Your task to perform on an android device: see sites visited before in the chrome app Image 0: 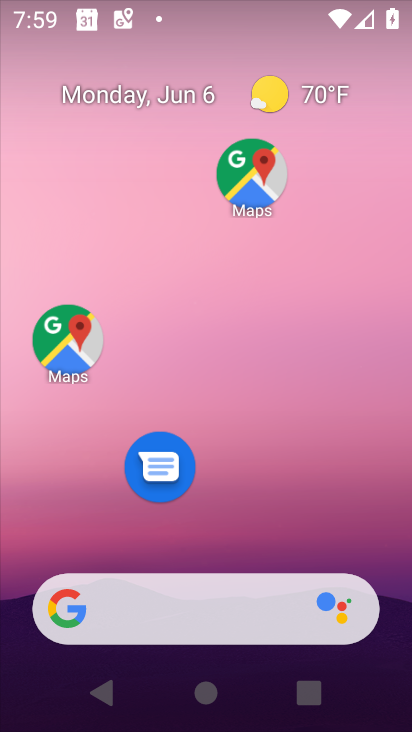
Step 0: drag from (235, 636) to (234, 345)
Your task to perform on an android device: see sites visited before in the chrome app Image 1: 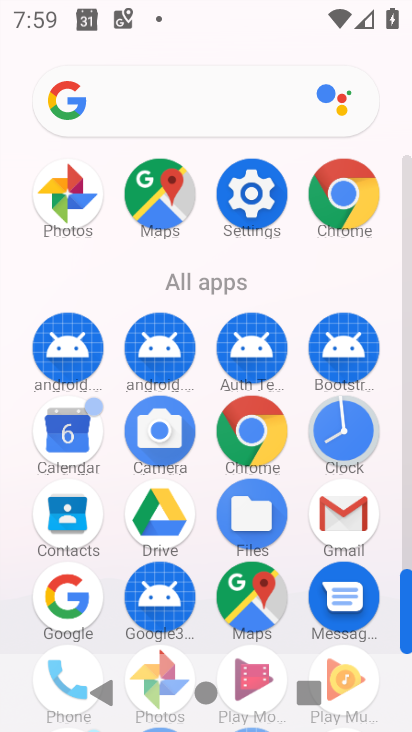
Step 1: click (243, 448)
Your task to perform on an android device: see sites visited before in the chrome app Image 2: 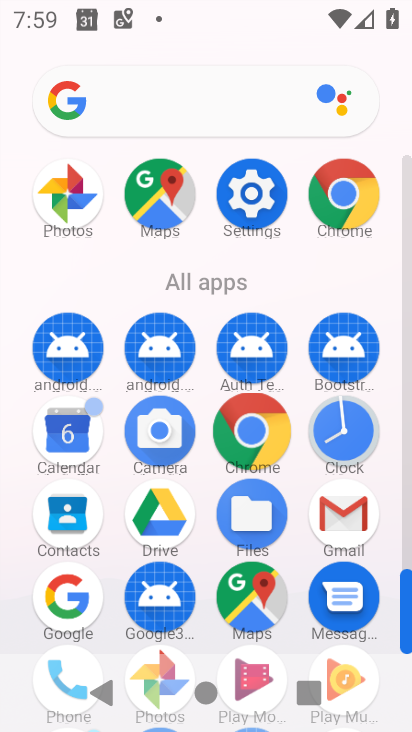
Step 2: click (243, 448)
Your task to perform on an android device: see sites visited before in the chrome app Image 3: 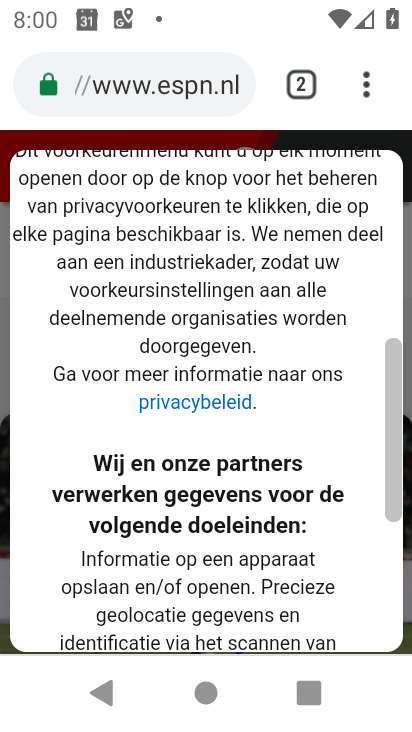
Step 3: click (361, 86)
Your task to perform on an android device: see sites visited before in the chrome app Image 4: 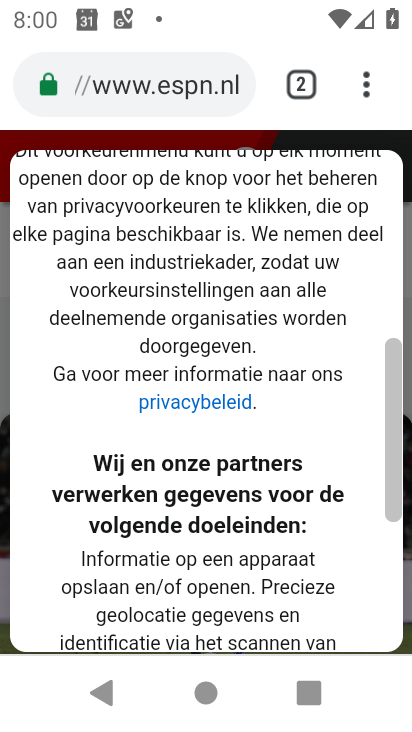
Step 4: click (365, 79)
Your task to perform on an android device: see sites visited before in the chrome app Image 5: 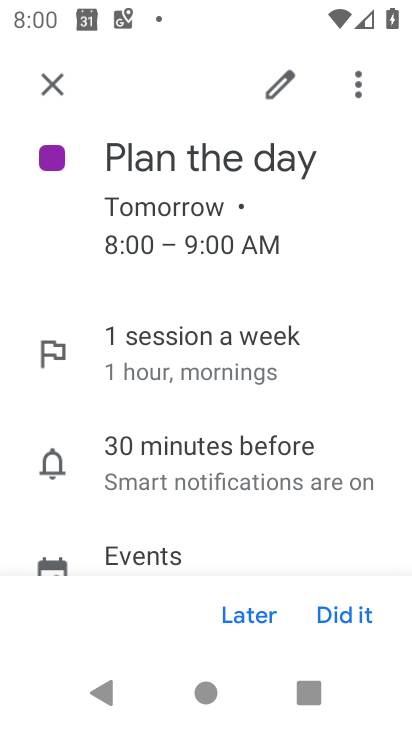
Step 5: click (51, 83)
Your task to perform on an android device: see sites visited before in the chrome app Image 6: 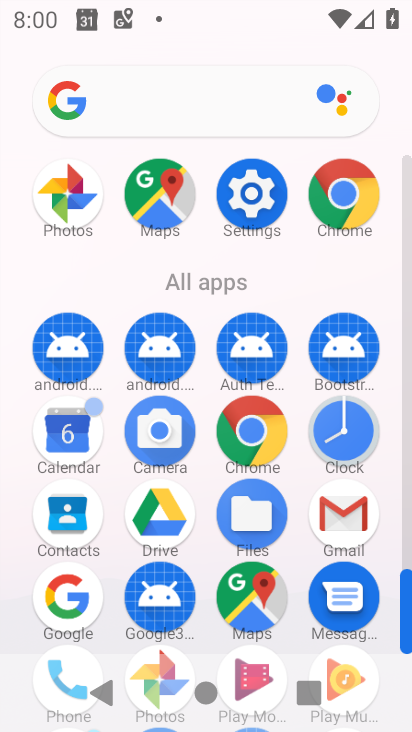
Step 6: click (240, 406)
Your task to perform on an android device: see sites visited before in the chrome app Image 7: 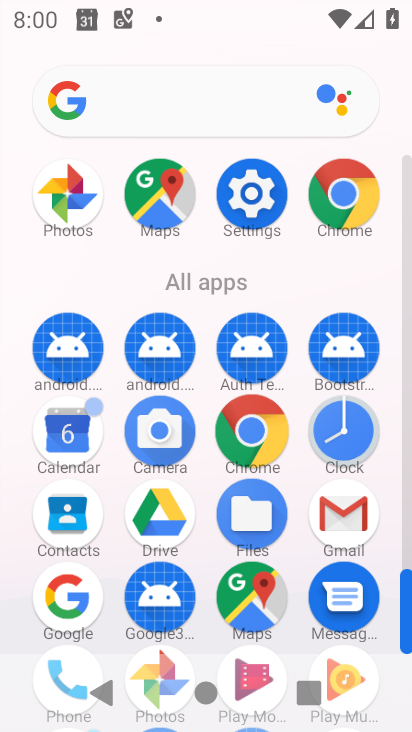
Step 7: click (241, 409)
Your task to perform on an android device: see sites visited before in the chrome app Image 8: 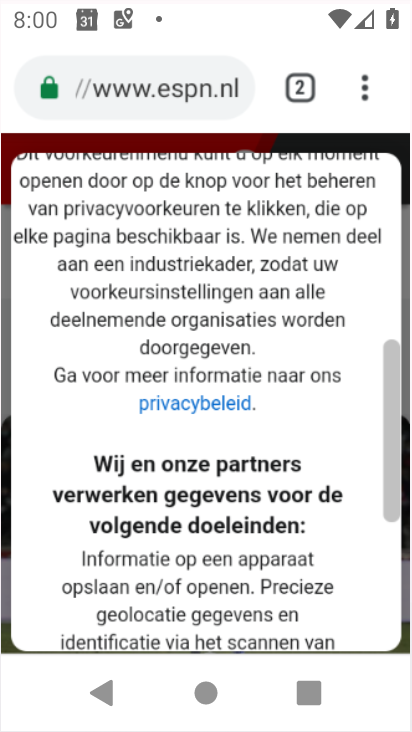
Step 8: click (246, 428)
Your task to perform on an android device: see sites visited before in the chrome app Image 9: 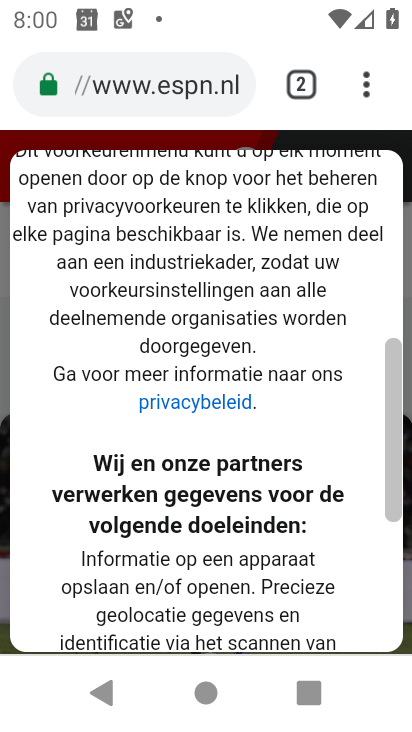
Step 9: drag from (367, 93) to (74, 514)
Your task to perform on an android device: see sites visited before in the chrome app Image 10: 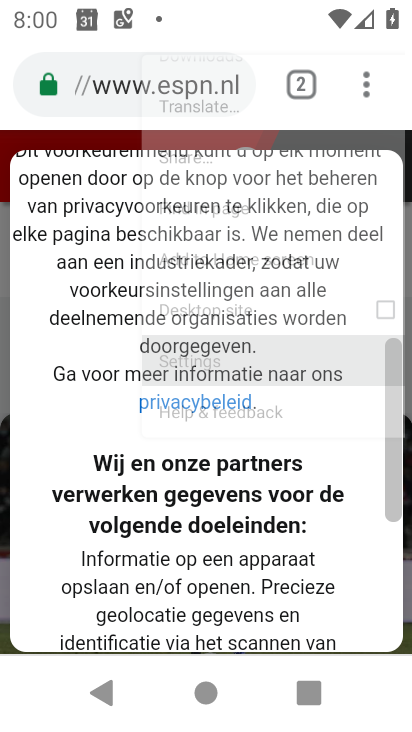
Step 10: click (76, 515)
Your task to perform on an android device: see sites visited before in the chrome app Image 11: 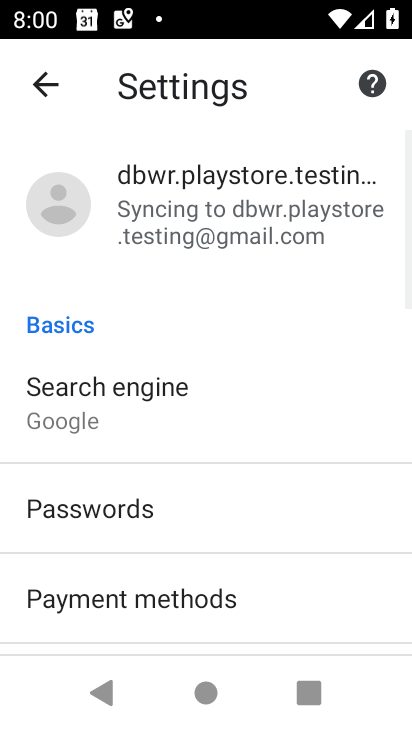
Step 11: click (31, 72)
Your task to perform on an android device: see sites visited before in the chrome app Image 12: 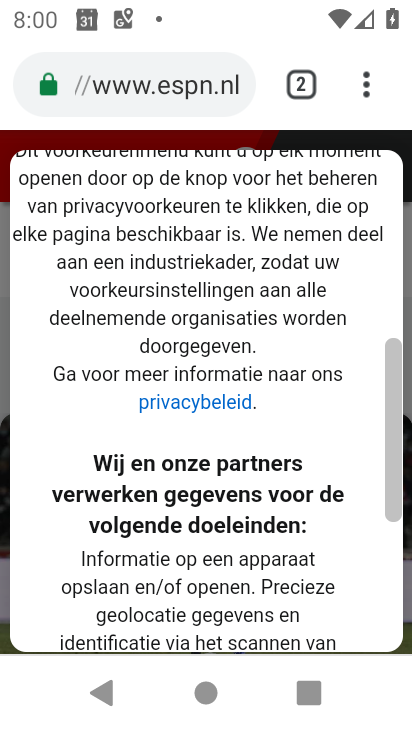
Step 12: click (370, 87)
Your task to perform on an android device: see sites visited before in the chrome app Image 13: 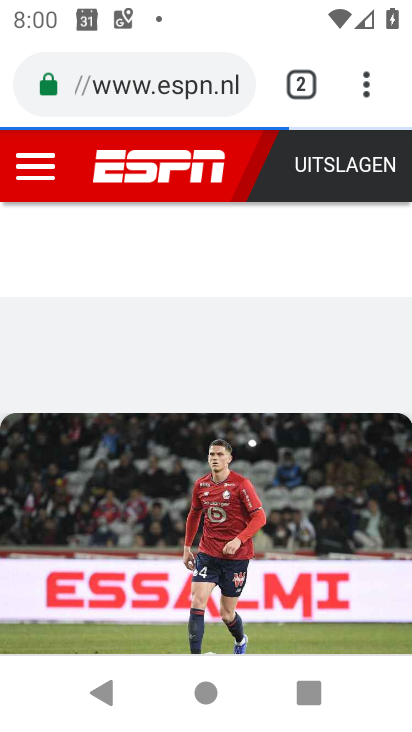
Step 13: drag from (370, 87) to (61, 151)
Your task to perform on an android device: see sites visited before in the chrome app Image 14: 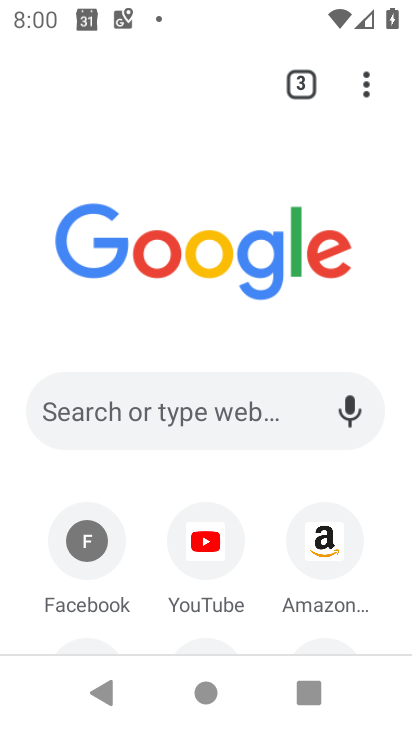
Step 14: click (371, 85)
Your task to perform on an android device: see sites visited before in the chrome app Image 15: 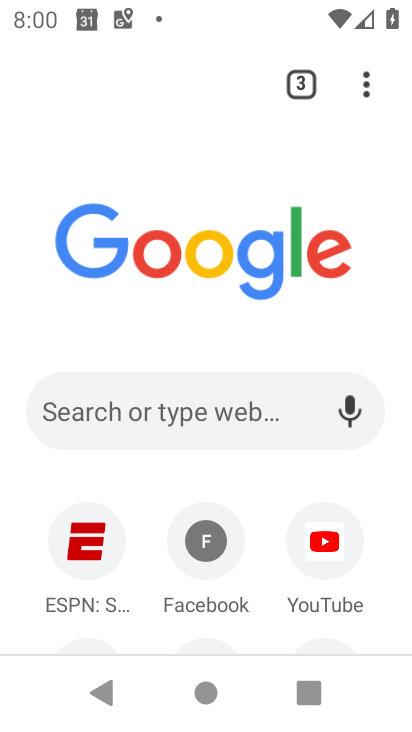
Step 15: click (363, 93)
Your task to perform on an android device: see sites visited before in the chrome app Image 16: 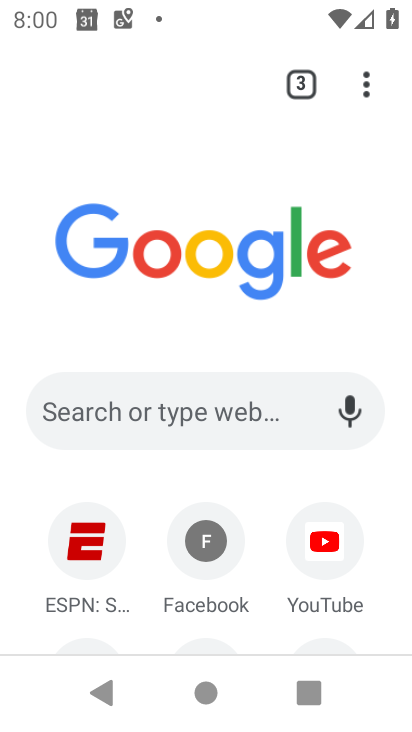
Step 16: click (367, 95)
Your task to perform on an android device: see sites visited before in the chrome app Image 17: 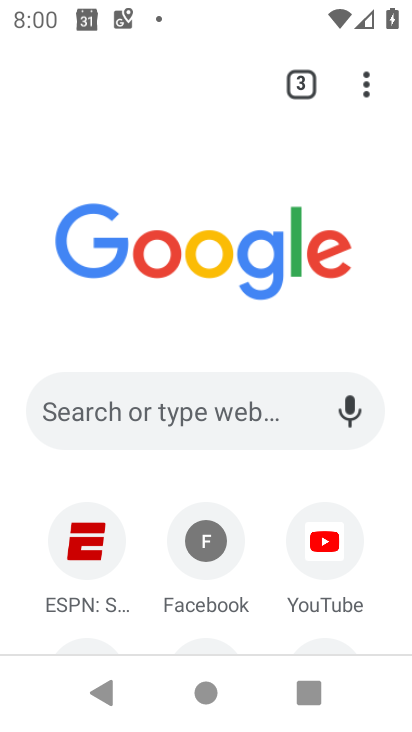
Step 17: drag from (364, 93) to (79, 398)
Your task to perform on an android device: see sites visited before in the chrome app Image 18: 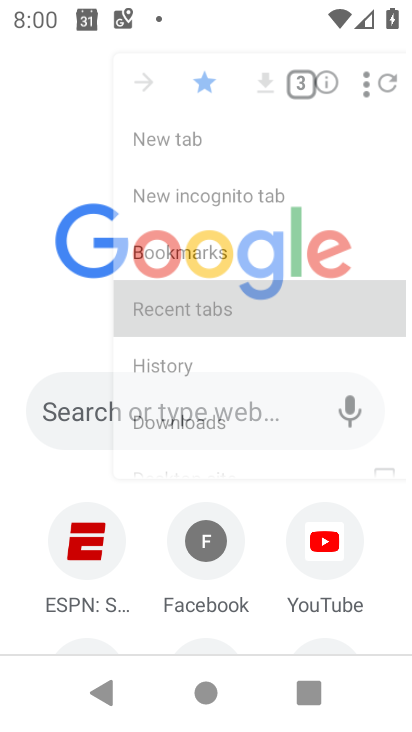
Step 18: click (84, 395)
Your task to perform on an android device: see sites visited before in the chrome app Image 19: 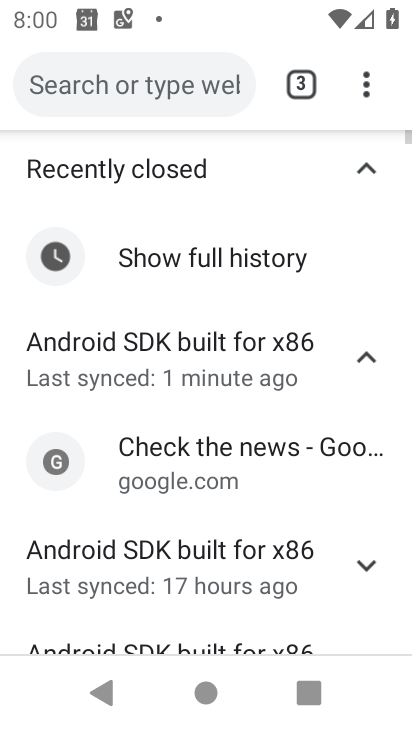
Step 19: task complete